Your task to perform on an android device: Do I have any events this weekend? Image 0: 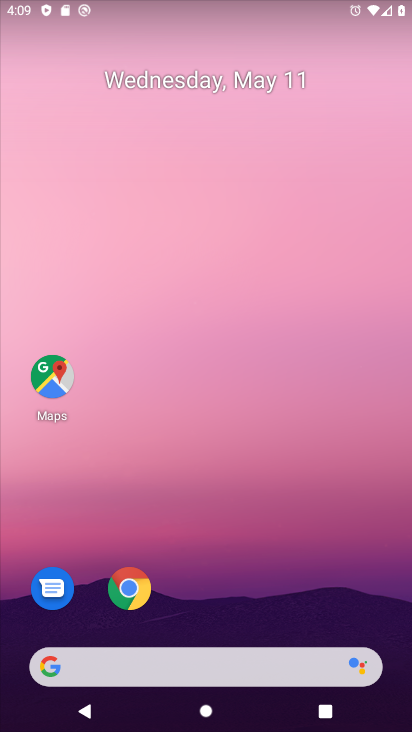
Step 0: drag from (292, 524) to (313, 201)
Your task to perform on an android device: Do I have any events this weekend? Image 1: 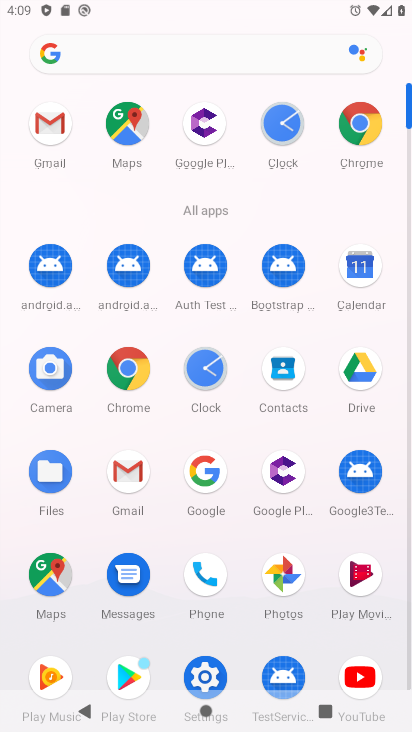
Step 1: click (348, 274)
Your task to perform on an android device: Do I have any events this weekend? Image 2: 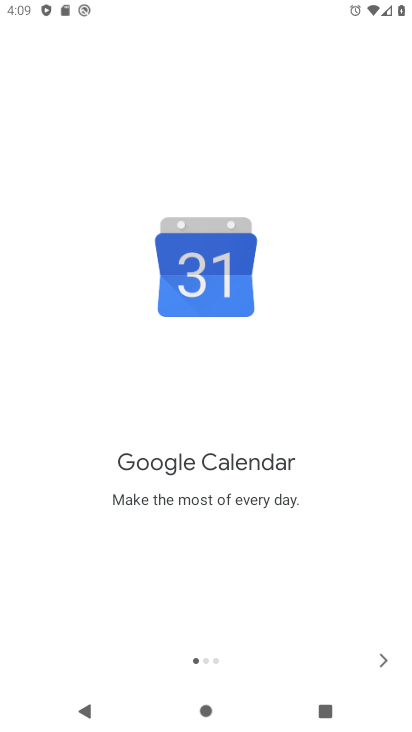
Step 2: click (379, 666)
Your task to perform on an android device: Do I have any events this weekend? Image 3: 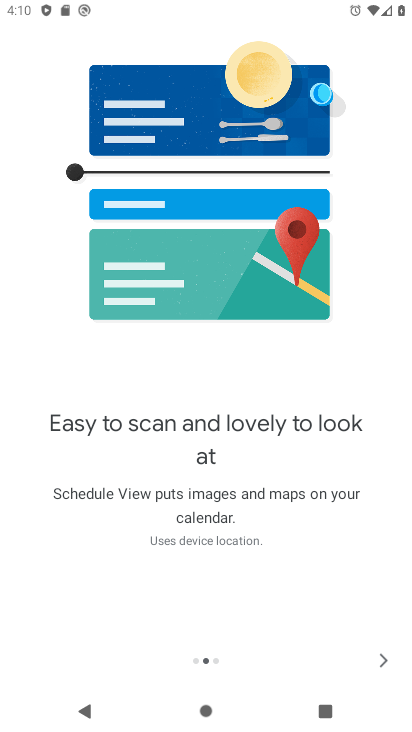
Step 3: click (379, 666)
Your task to perform on an android device: Do I have any events this weekend? Image 4: 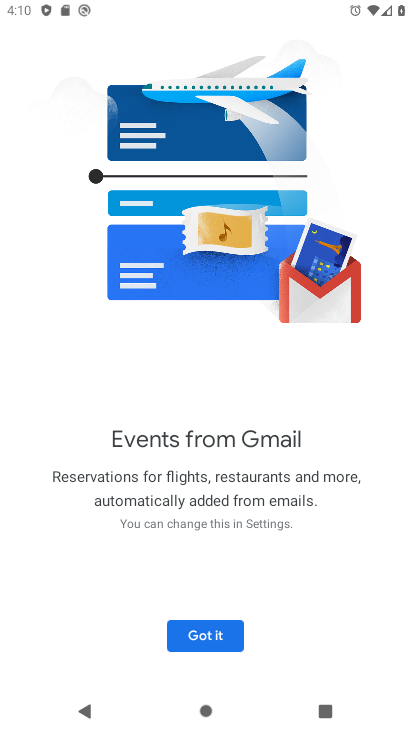
Step 4: click (170, 629)
Your task to perform on an android device: Do I have any events this weekend? Image 5: 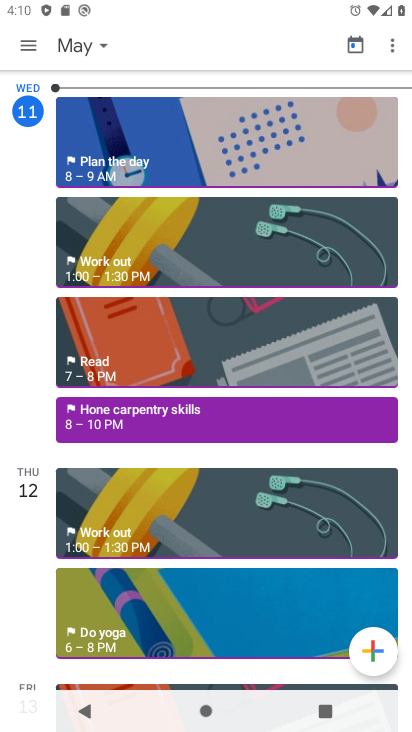
Step 5: click (70, 47)
Your task to perform on an android device: Do I have any events this weekend? Image 6: 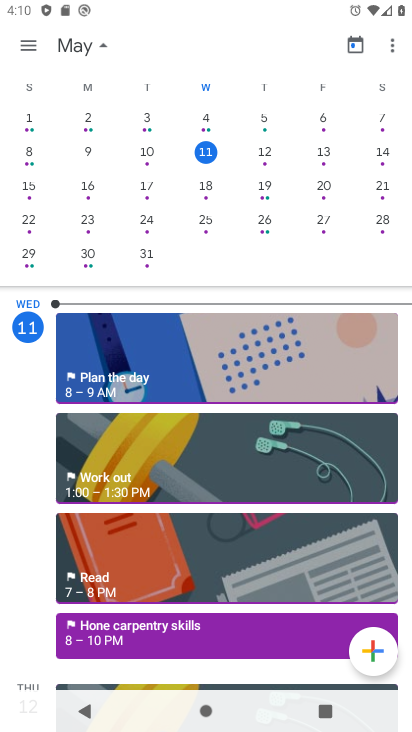
Step 6: click (256, 153)
Your task to perform on an android device: Do I have any events this weekend? Image 7: 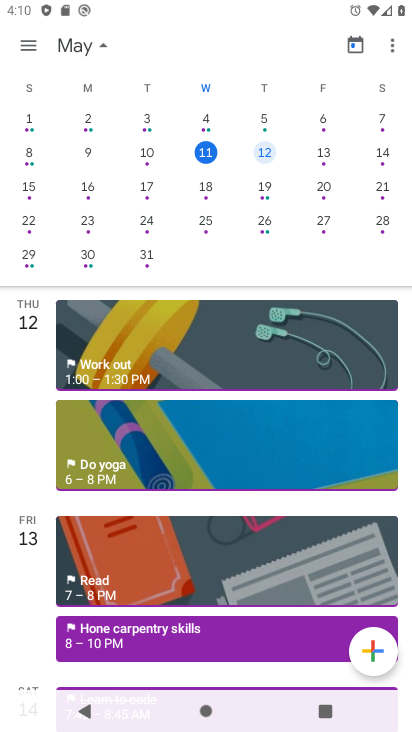
Step 7: task complete